Your task to perform on an android device: toggle notification dots Image 0: 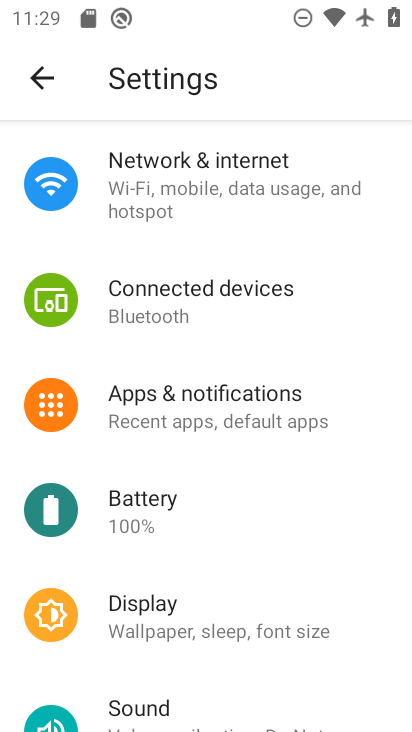
Step 0: click (205, 396)
Your task to perform on an android device: toggle notification dots Image 1: 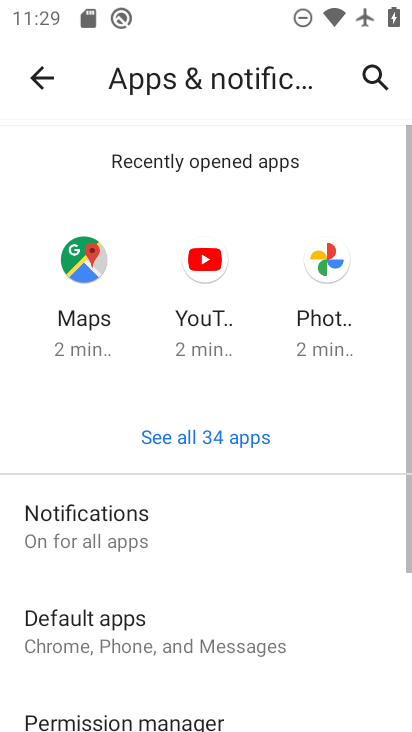
Step 1: click (102, 540)
Your task to perform on an android device: toggle notification dots Image 2: 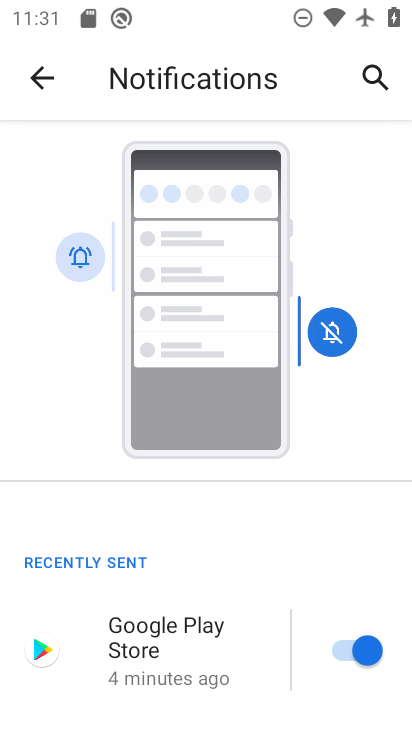
Step 2: drag from (195, 663) to (233, 217)
Your task to perform on an android device: toggle notification dots Image 3: 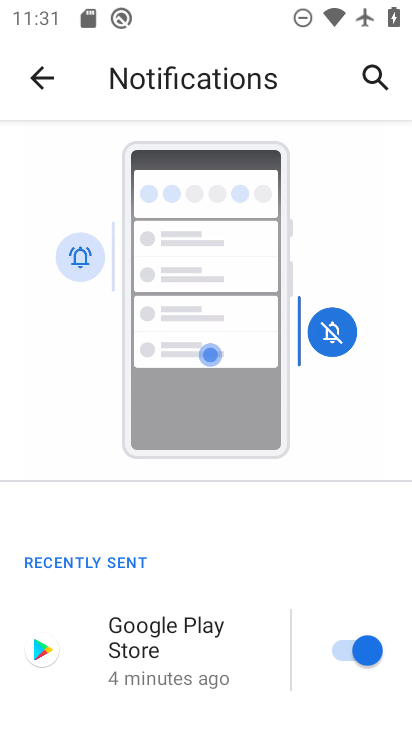
Step 3: drag from (226, 570) to (212, 133)
Your task to perform on an android device: toggle notification dots Image 4: 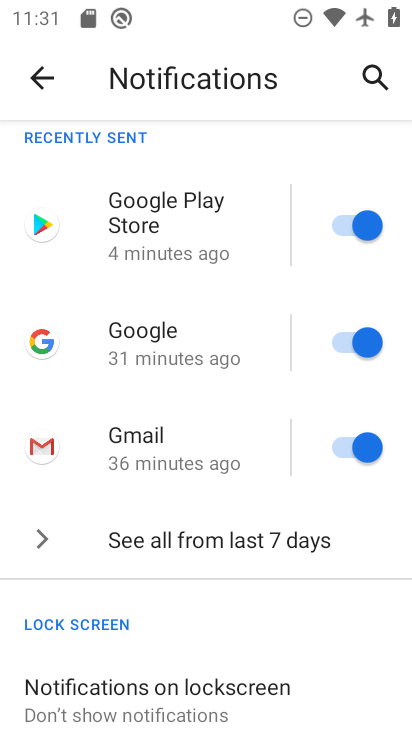
Step 4: drag from (197, 692) to (218, 183)
Your task to perform on an android device: toggle notification dots Image 5: 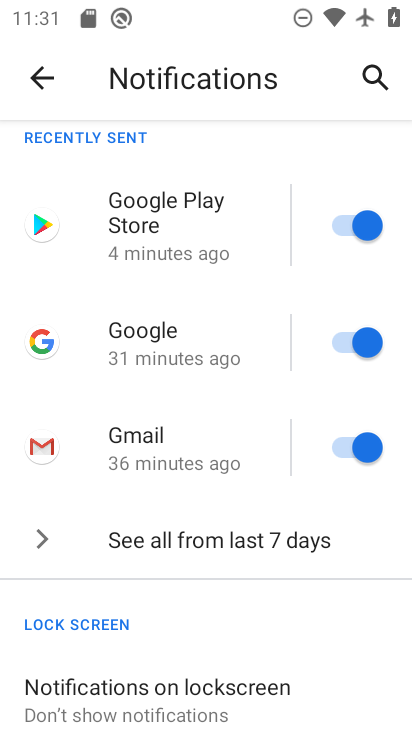
Step 5: drag from (264, 633) to (264, 161)
Your task to perform on an android device: toggle notification dots Image 6: 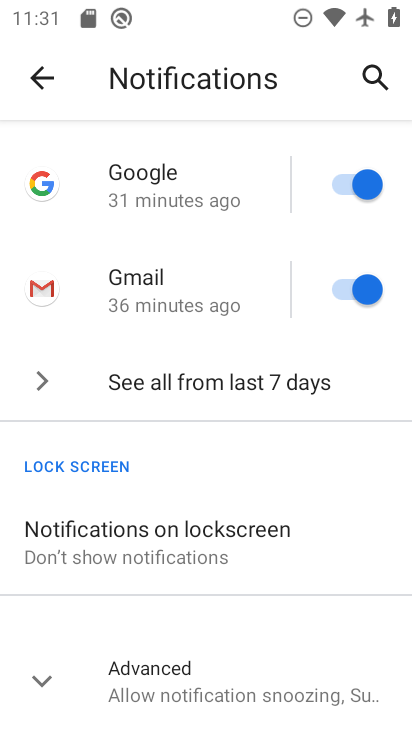
Step 6: click (205, 690)
Your task to perform on an android device: toggle notification dots Image 7: 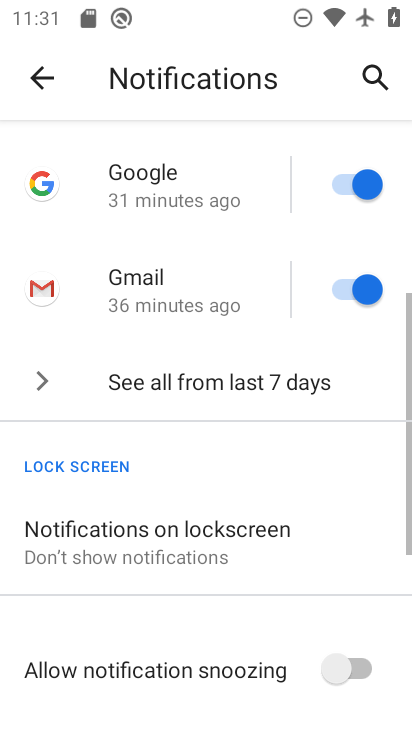
Step 7: drag from (338, 616) to (377, 69)
Your task to perform on an android device: toggle notification dots Image 8: 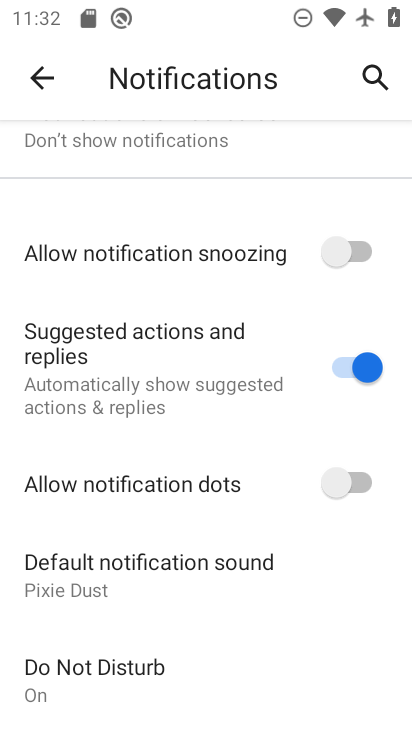
Step 8: click (361, 476)
Your task to perform on an android device: toggle notification dots Image 9: 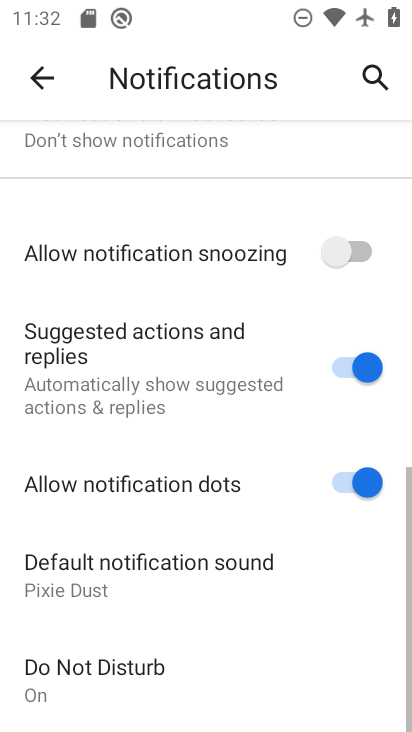
Step 9: task complete